Your task to perform on an android device: When is my next meeting? Image 0: 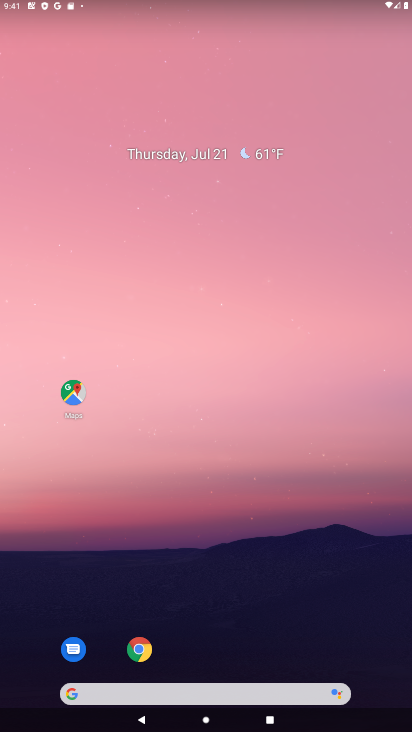
Step 0: drag from (218, 697) to (239, 236)
Your task to perform on an android device: When is my next meeting? Image 1: 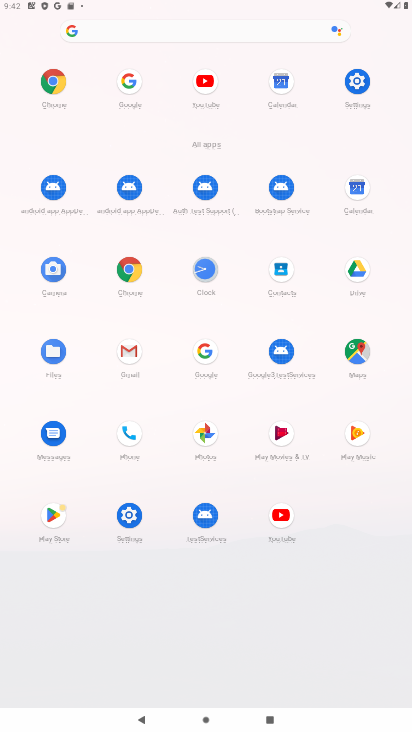
Step 1: click (355, 188)
Your task to perform on an android device: When is my next meeting? Image 2: 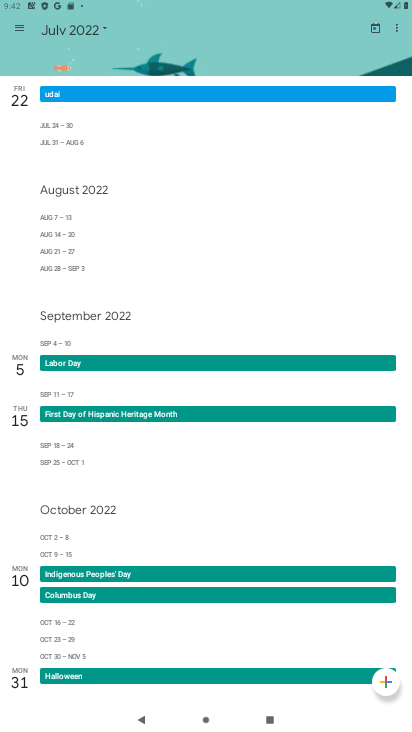
Step 2: click (378, 30)
Your task to perform on an android device: When is my next meeting? Image 3: 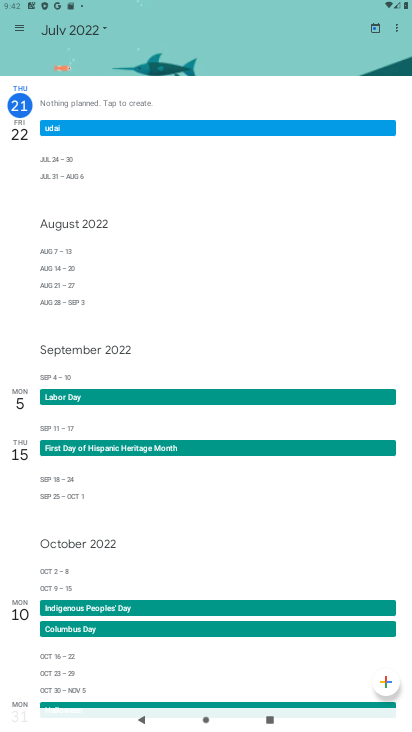
Step 3: click (104, 25)
Your task to perform on an android device: When is my next meeting? Image 4: 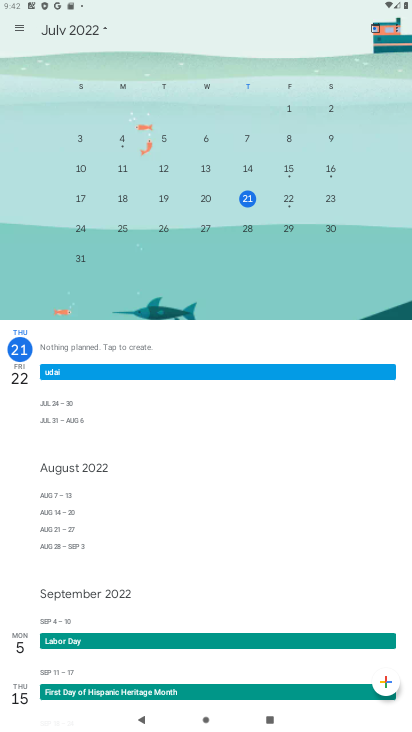
Step 4: click (291, 197)
Your task to perform on an android device: When is my next meeting? Image 5: 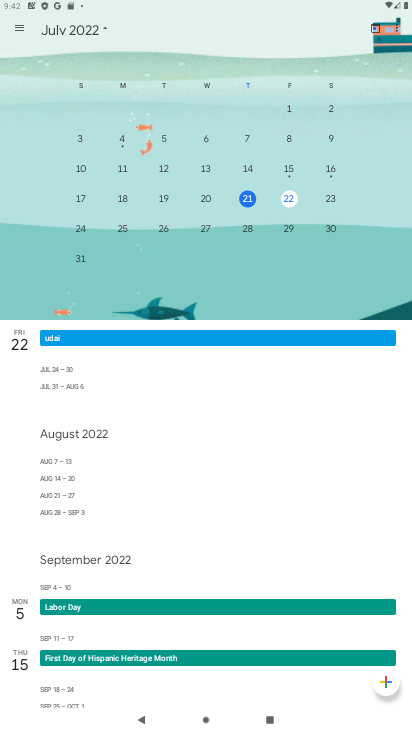
Step 5: click (19, 23)
Your task to perform on an android device: When is my next meeting? Image 6: 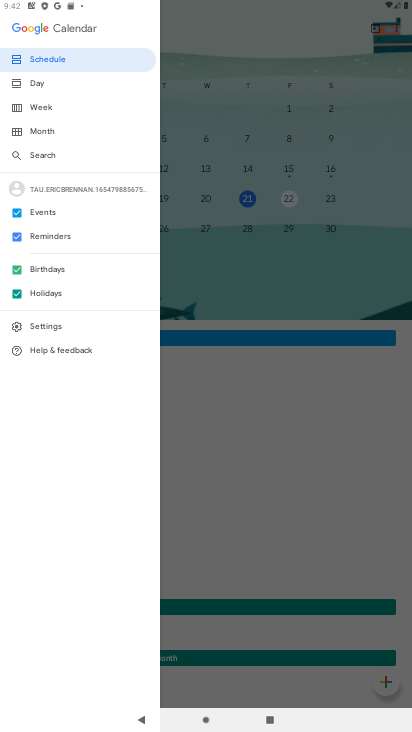
Step 6: click (50, 106)
Your task to perform on an android device: When is my next meeting? Image 7: 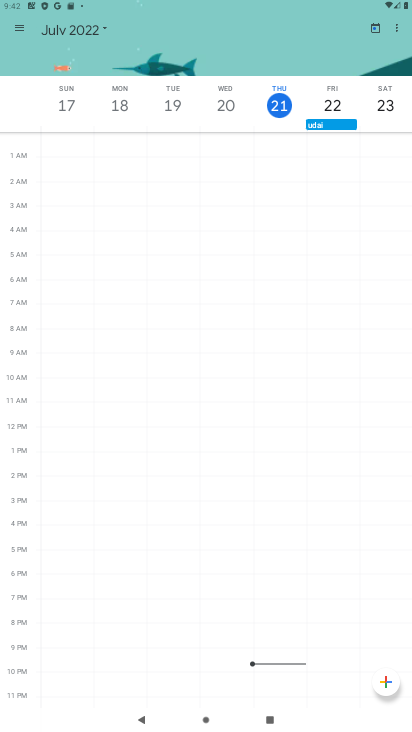
Step 7: task complete